Your task to perform on an android device: Is it going to rain tomorrow? Image 0: 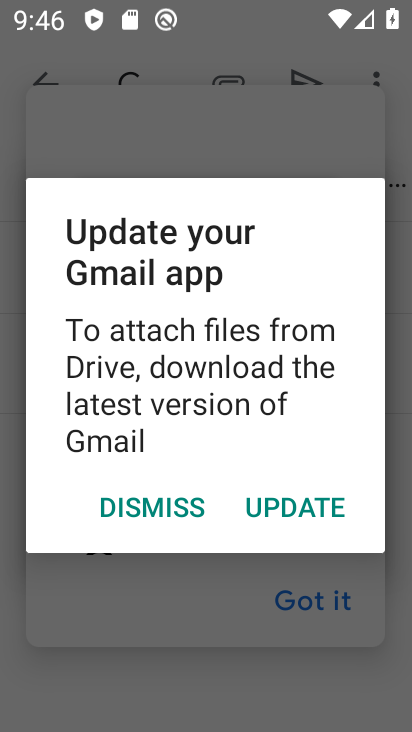
Step 0: press home button
Your task to perform on an android device: Is it going to rain tomorrow? Image 1: 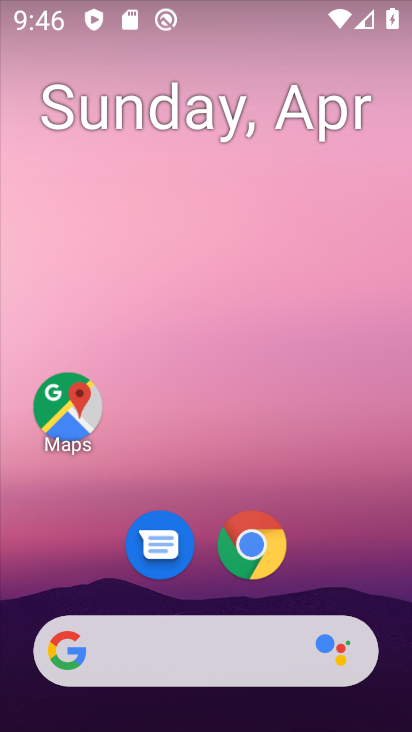
Step 1: drag from (368, 577) to (365, 118)
Your task to perform on an android device: Is it going to rain tomorrow? Image 2: 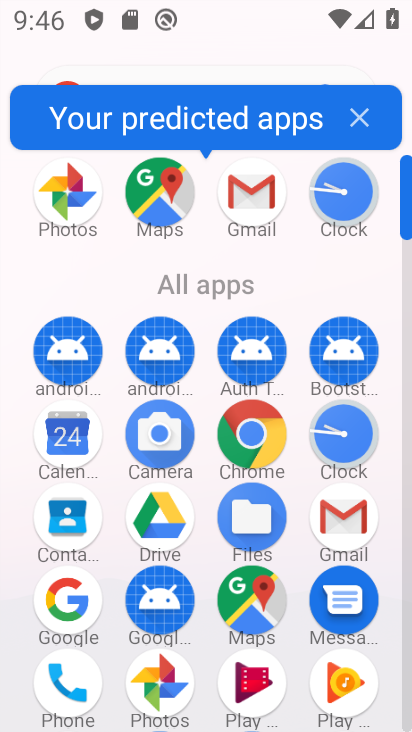
Step 2: click (265, 453)
Your task to perform on an android device: Is it going to rain tomorrow? Image 3: 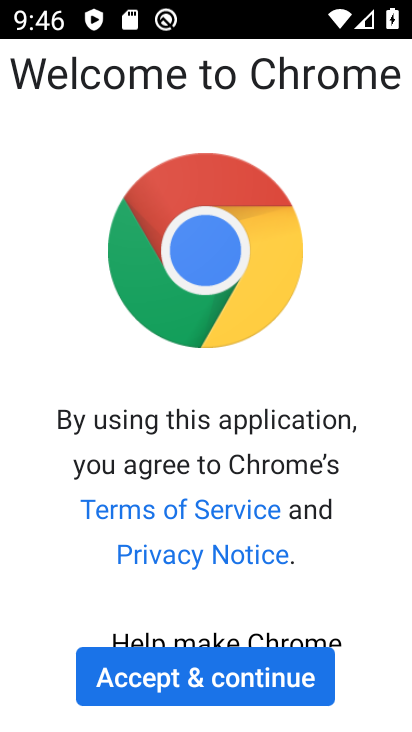
Step 3: click (249, 694)
Your task to perform on an android device: Is it going to rain tomorrow? Image 4: 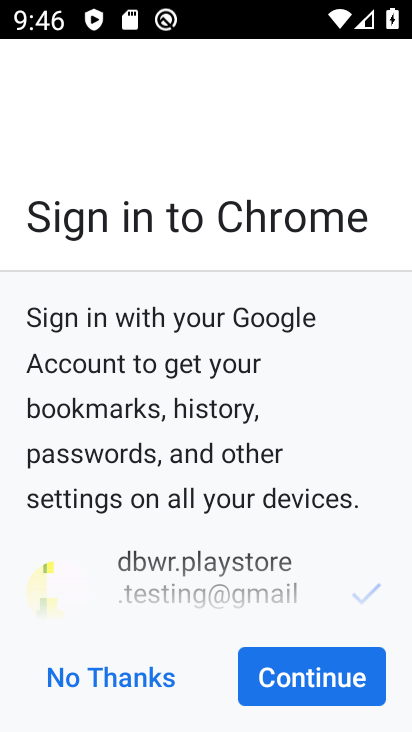
Step 4: click (351, 682)
Your task to perform on an android device: Is it going to rain tomorrow? Image 5: 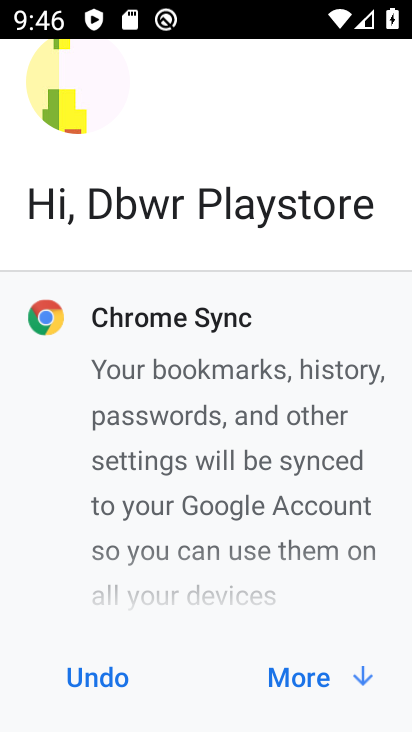
Step 5: click (320, 685)
Your task to perform on an android device: Is it going to rain tomorrow? Image 6: 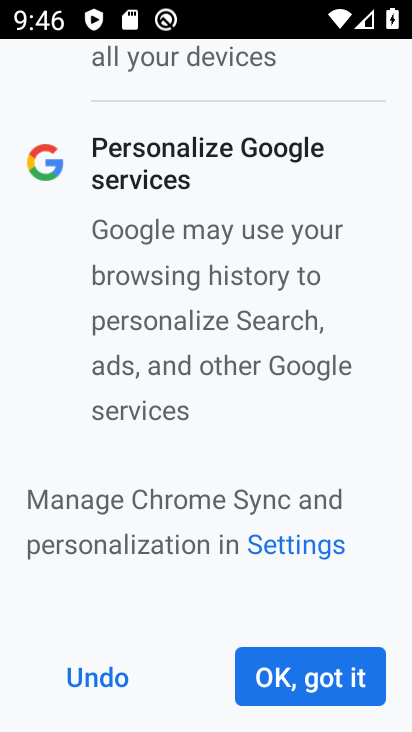
Step 6: click (320, 685)
Your task to perform on an android device: Is it going to rain tomorrow? Image 7: 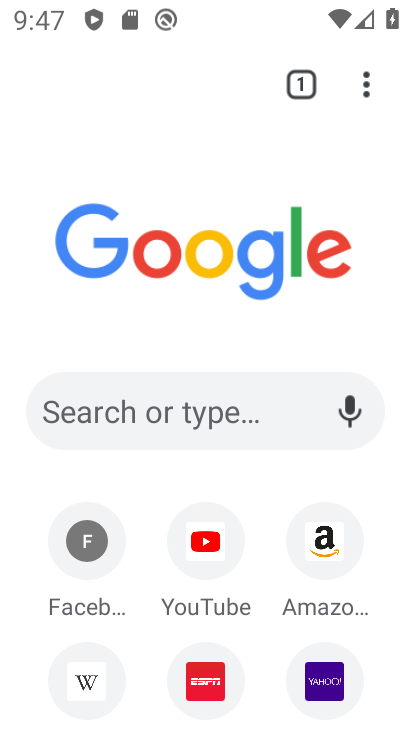
Step 7: click (133, 396)
Your task to perform on an android device: Is it going to rain tomorrow? Image 8: 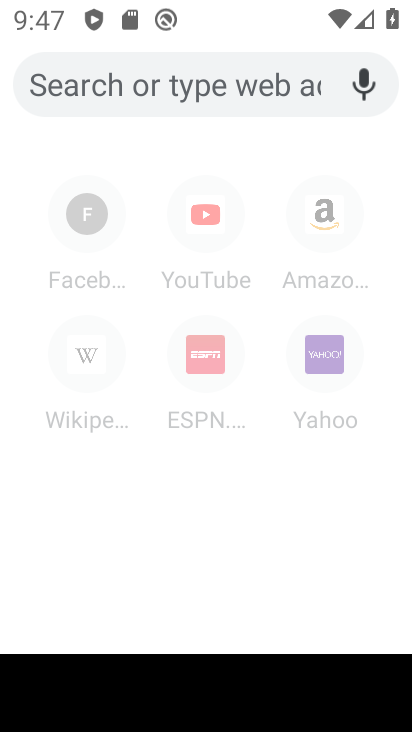
Step 8: type "Is it going to rain tomorrow?"
Your task to perform on an android device: Is it going to rain tomorrow? Image 9: 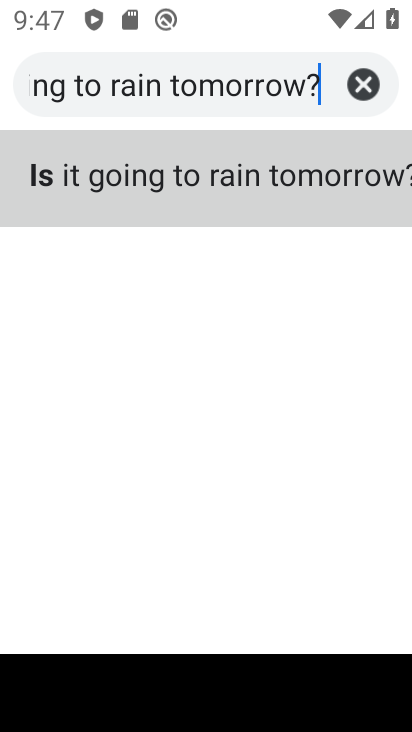
Step 9: click (206, 176)
Your task to perform on an android device: Is it going to rain tomorrow? Image 10: 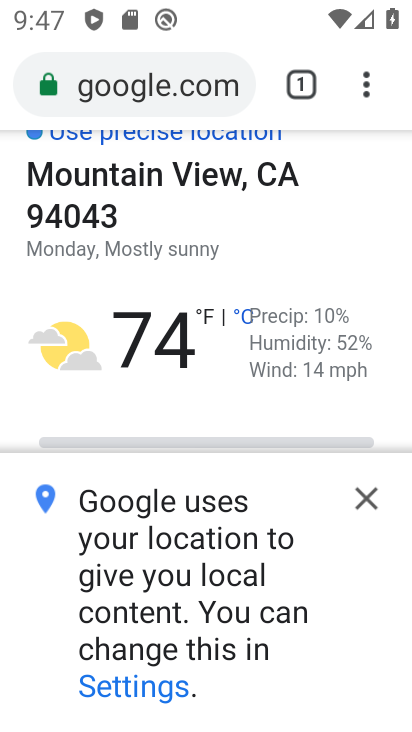
Step 10: click (363, 510)
Your task to perform on an android device: Is it going to rain tomorrow? Image 11: 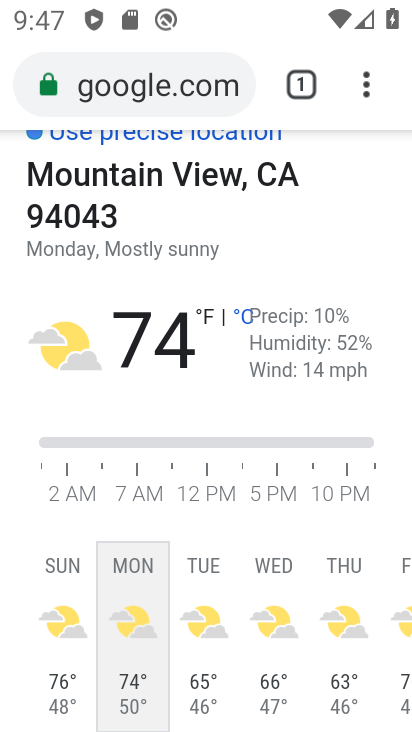
Step 11: task complete